Your task to perform on an android device: What's on my calendar tomorrow? Image 0: 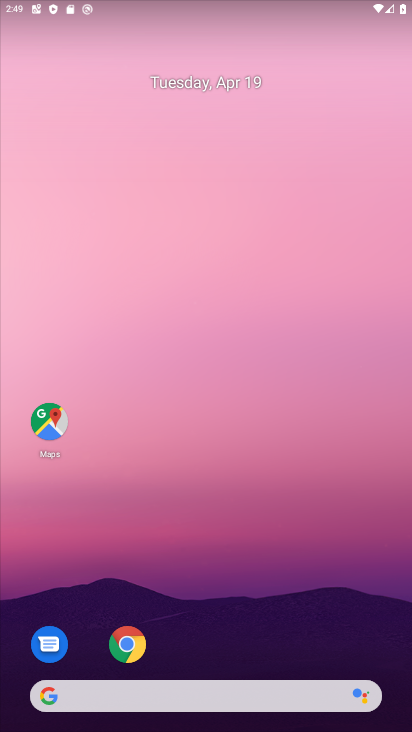
Step 0: drag from (269, 648) to (187, 165)
Your task to perform on an android device: What's on my calendar tomorrow? Image 1: 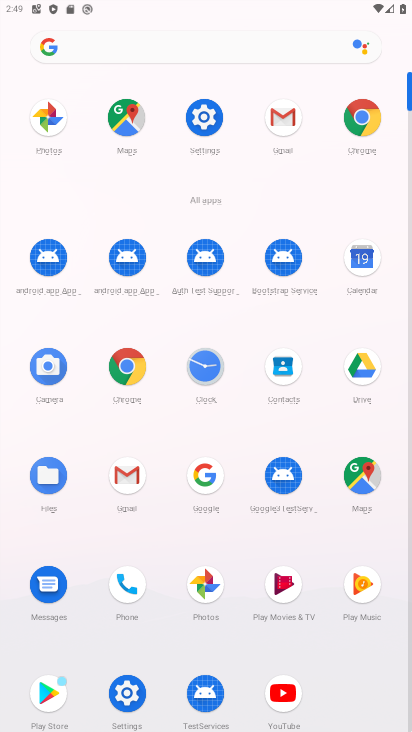
Step 1: click (364, 254)
Your task to perform on an android device: What's on my calendar tomorrow? Image 2: 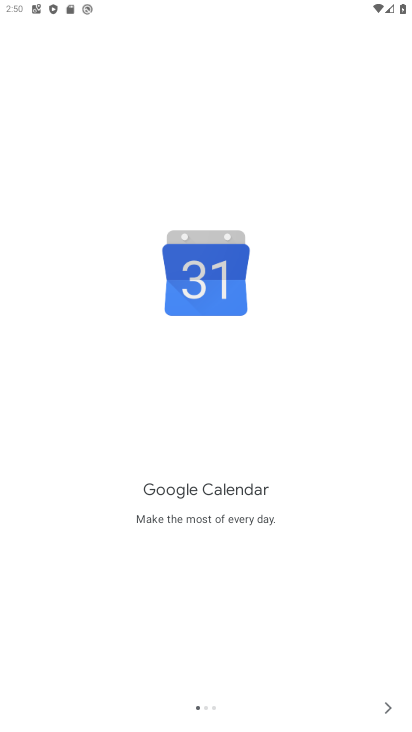
Step 2: click (396, 704)
Your task to perform on an android device: What's on my calendar tomorrow? Image 3: 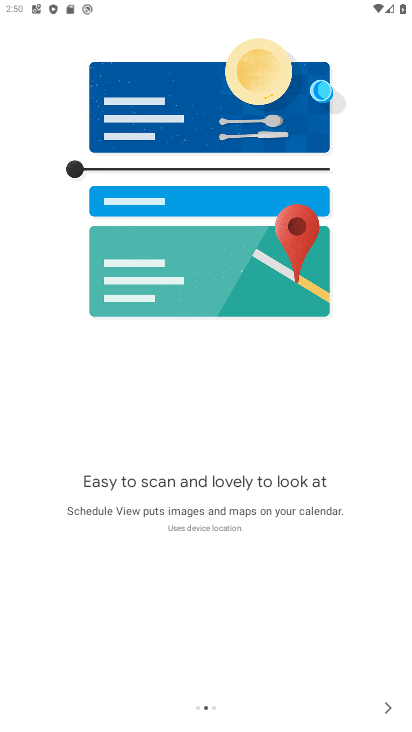
Step 3: click (392, 706)
Your task to perform on an android device: What's on my calendar tomorrow? Image 4: 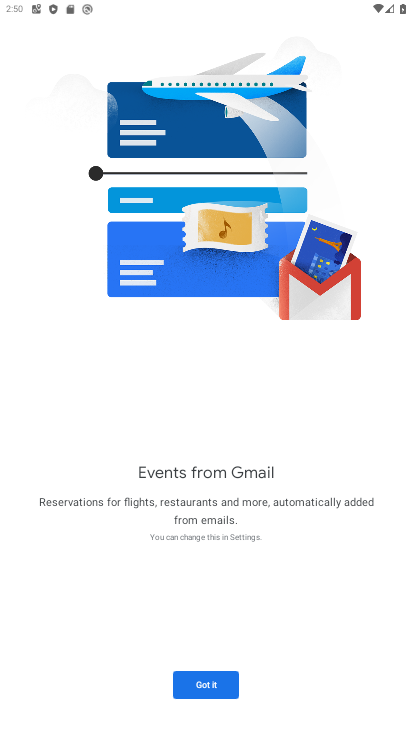
Step 4: click (177, 687)
Your task to perform on an android device: What's on my calendar tomorrow? Image 5: 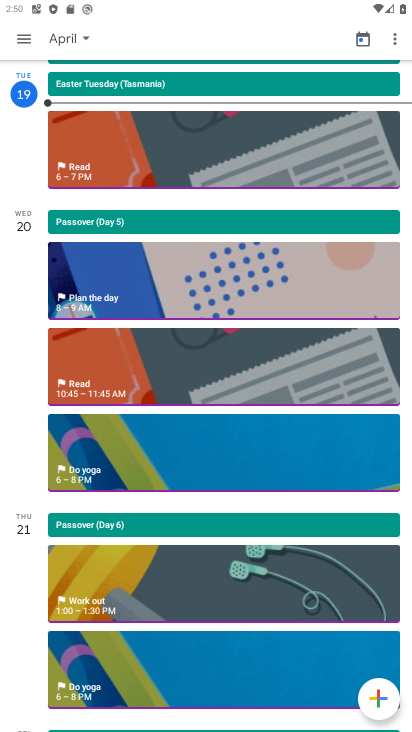
Step 5: task complete